Your task to perform on an android device: Open the Play Movies app and select the watchlist tab. Image 0: 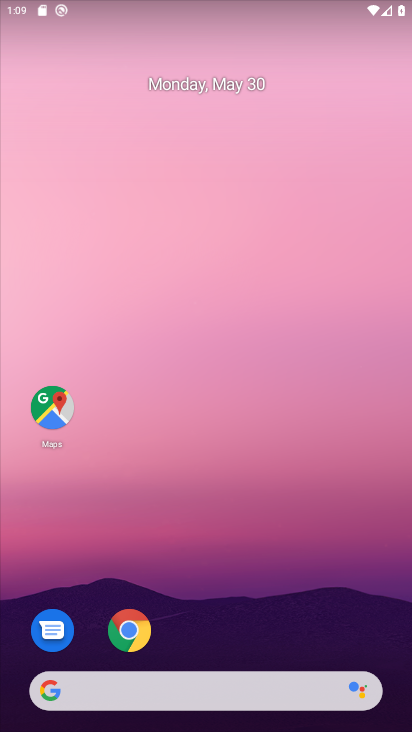
Step 0: drag from (214, 677) to (331, 176)
Your task to perform on an android device: Open the Play Movies app and select the watchlist tab. Image 1: 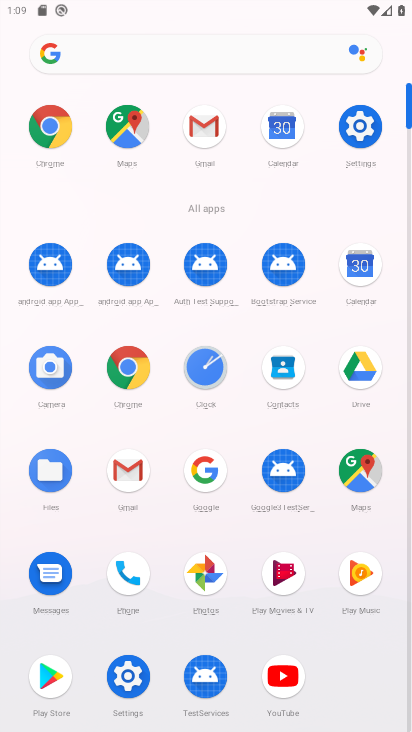
Step 1: click (286, 573)
Your task to perform on an android device: Open the Play Movies app and select the watchlist tab. Image 2: 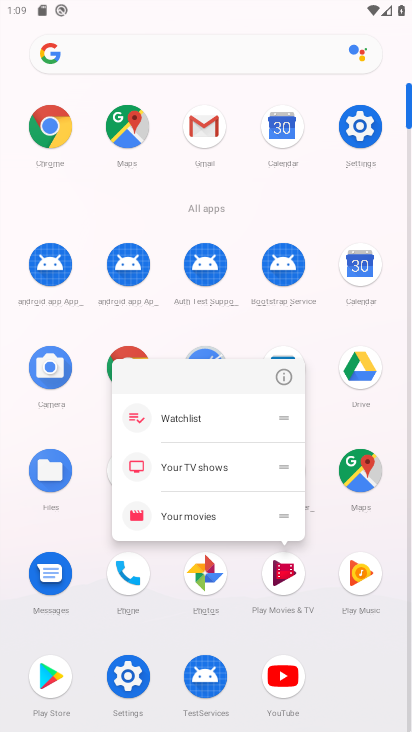
Step 2: click (273, 582)
Your task to perform on an android device: Open the Play Movies app and select the watchlist tab. Image 3: 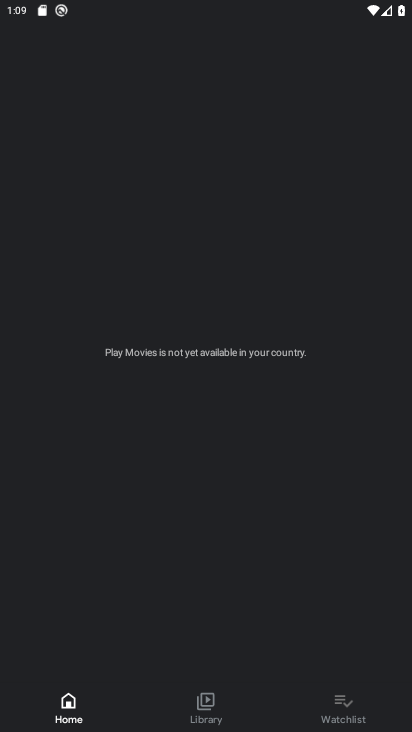
Step 3: click (336, 710)
Your task to perform on an android device: Open the Play Movies app and select the watchlist tab. Image 4: 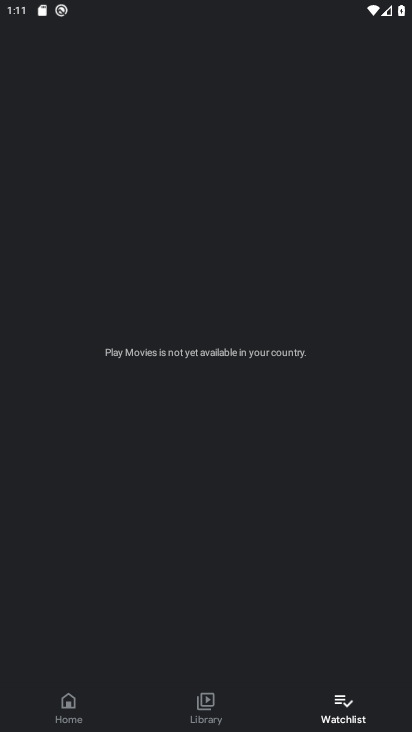
Step 4: task complete